Your task to perform on an android device: change the clock display to show seconds Image 0: 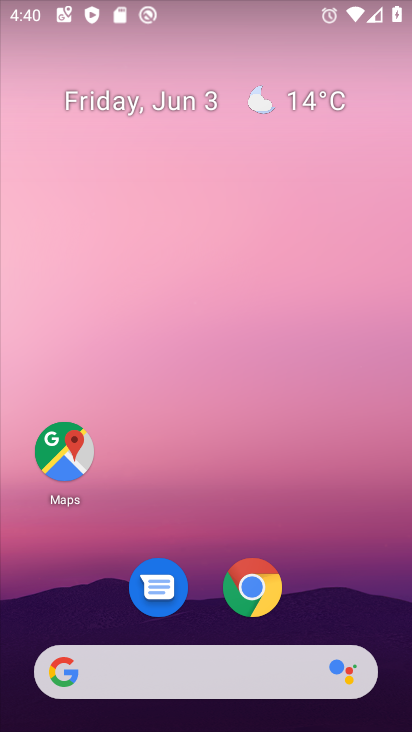
Step 0: drag from (208, 648) to (208, 173)
Your task to perform on an android device: change the clock display to show seconds Image 1: 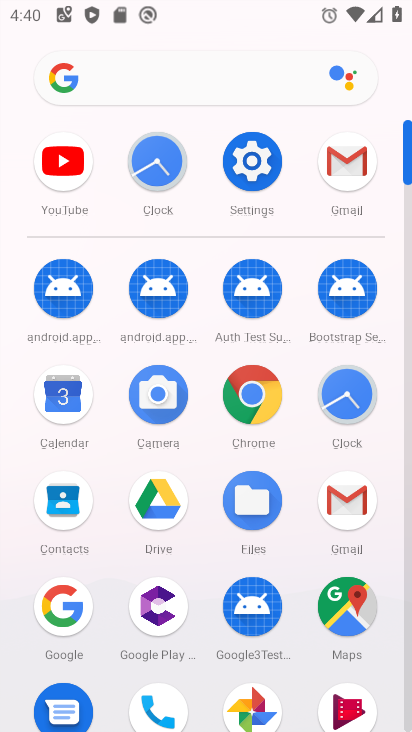
Step 1: click (364, 393)
Your task to perform on an android device: change the clock display to show seconds Image 2: 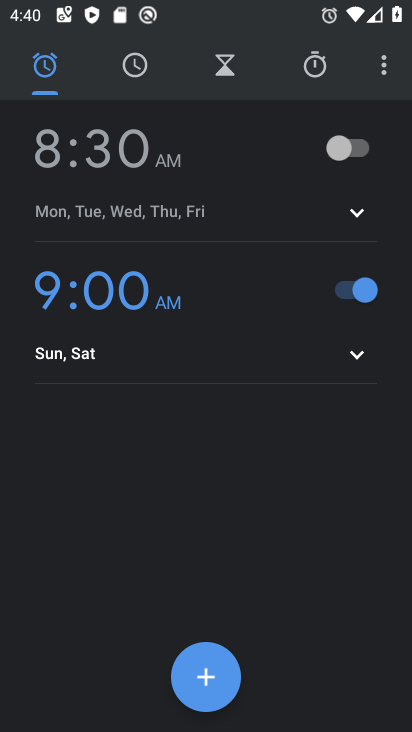
Step 2: click (387, 74)
Your task to perform on an android device: change the clock display to show seconds Image 3: 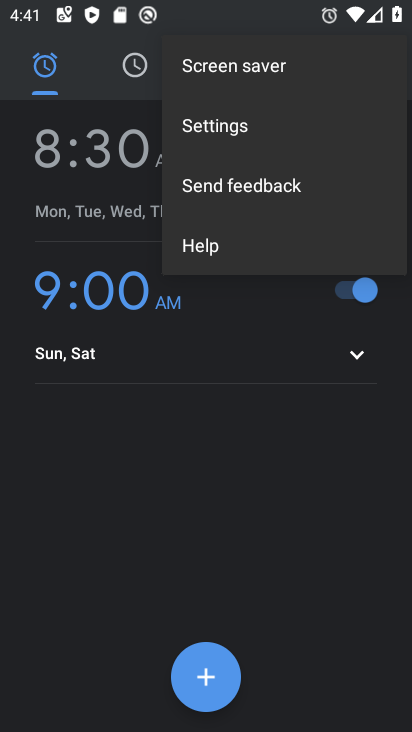
Step 3: click (240, 130)
Your task to perform on an android device: change the clock display to show seconds Image 4: 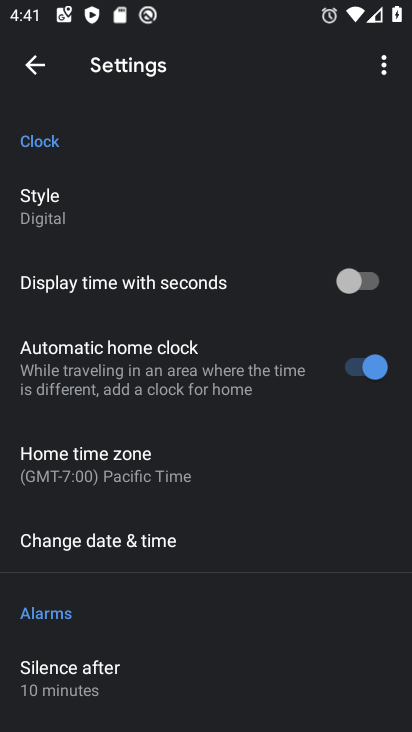
Step 4: click (359, 288)
Your task to perform on an android device: change the clock display to show seconds Image 5: 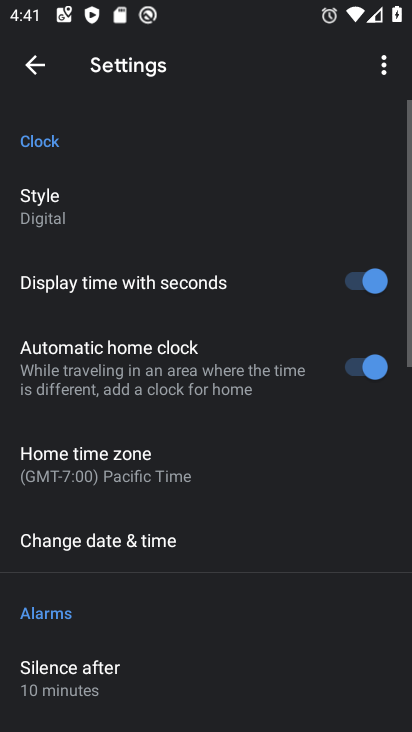
Step 5: task complete